Your task to perform on an android device: turn off airplane mode Image 0: 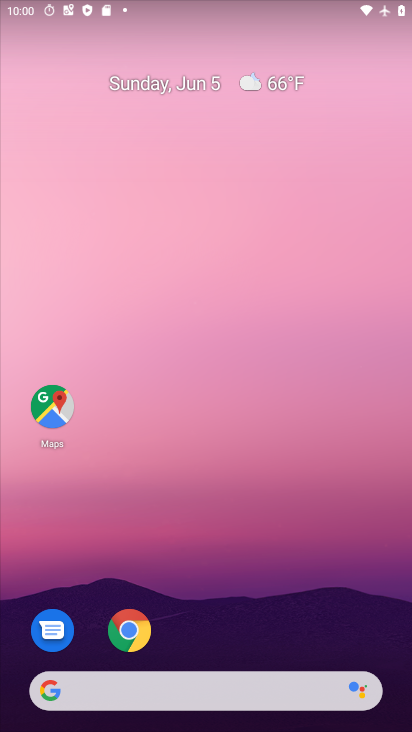
Step 0: drag from (230, 720) to (228, 37)
Your task to perform on an android device: turn off airplane mode Image 1: 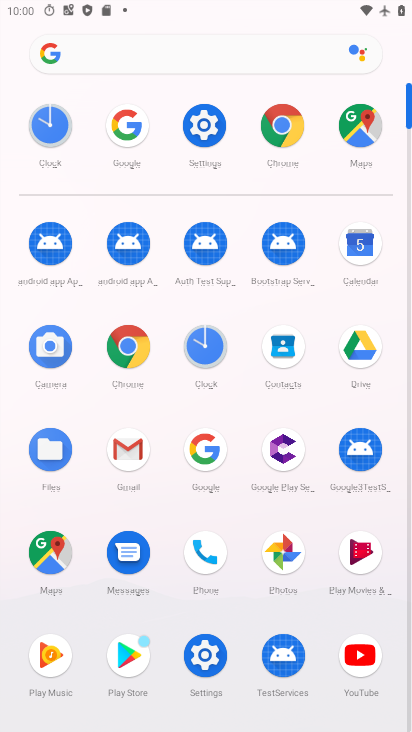
Step 1: click (196, 121)
Your task to perform on an android device: turn off airplane mode Image 2: 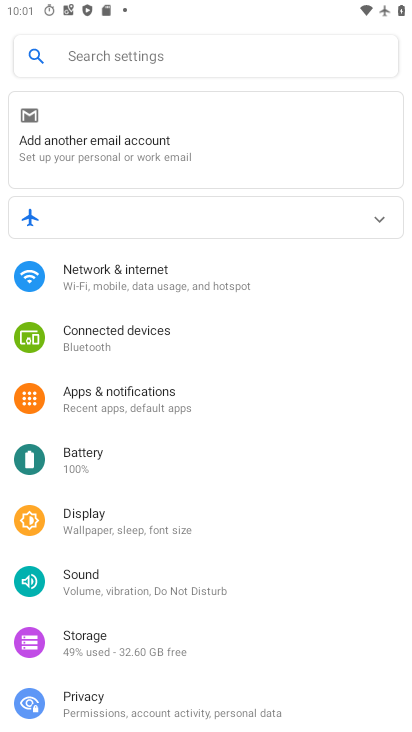
Step 2: click (76, 278)
Your task to perform on an android device: turn off airplane mode Image 3: 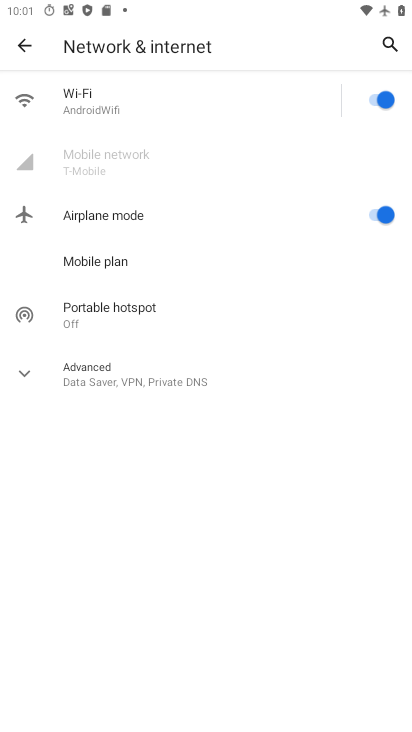
Step 3: click (368, 213)
Your task to perform on an android device: turn off airplane mode Image 4: 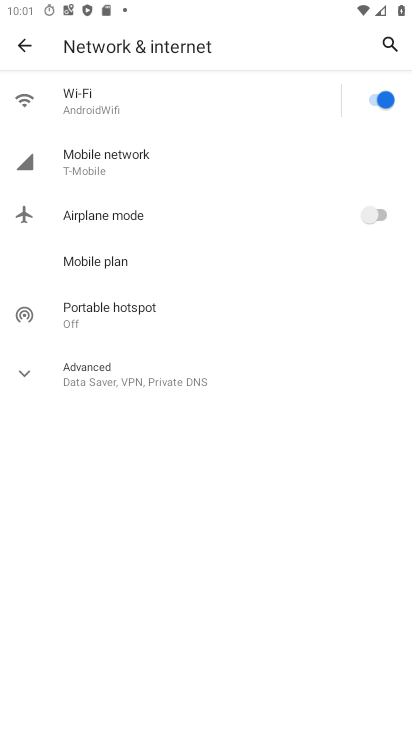
Step 4: task complete